Your task to perform on an android device: open app "Gmail" (install if not already installed) and go to login screen Image 0: 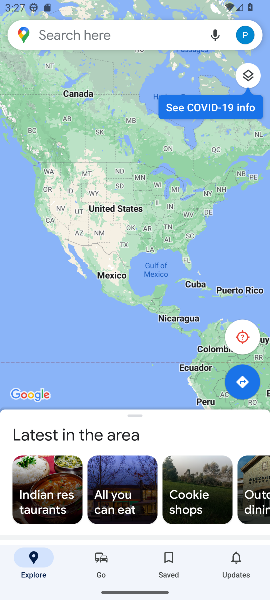
Step 0: press home button
Your task to perform on an android device: open app "Gmail" (install if not already installed) and go to login screen Image 1: 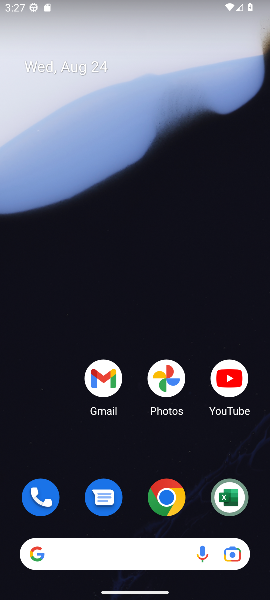
Step 1: drag from (129, 559) to (135, 227)
Your task to perform on an android device: open app "Gmail" (install if not already installed) and go to login screen Image 2: 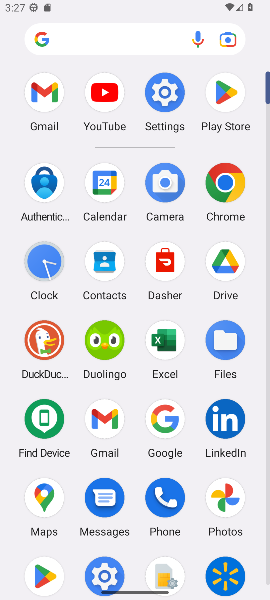
Step 2: click (230, 95)
Your task to perform on an android device: open app "Gmail" (install if not already installed) and go to login screen Image 3: 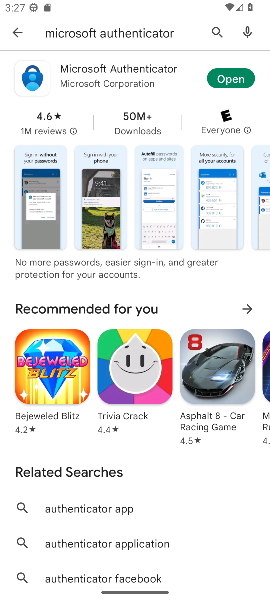
Step 3: press back button
Your task to perform on an android device: open app "Gmail" (install if not already installed) and go to login screen Image 4: 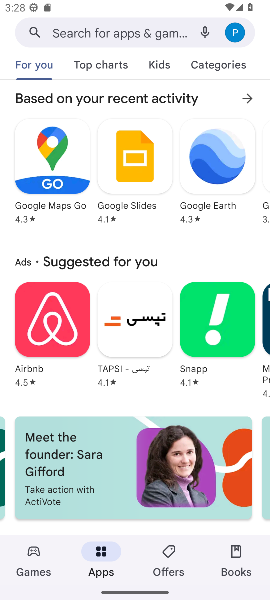
Step 4: click (147, 37)
Your task to perform on an android device: open app "Gmail" (install if not already installed) and go to login screen Image 5: 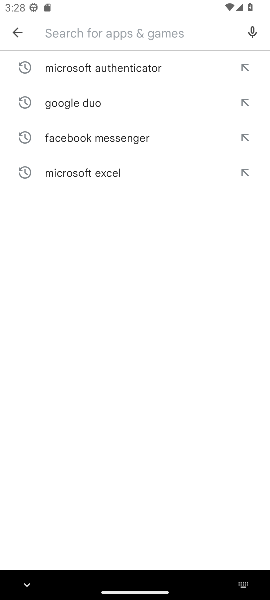
Step 5: type "Gmail"
Your task to perform on an android device: open app "Gmail" (install if not already installed) and go to login screen Image 6: 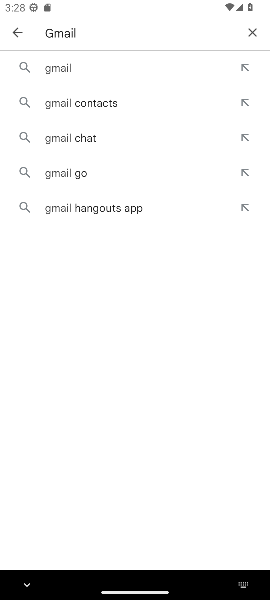
Step 6: click (58, 69)
Your task to perform on an android device: open app "Gmail" (install if not already installed) and go to login screen Image 7: 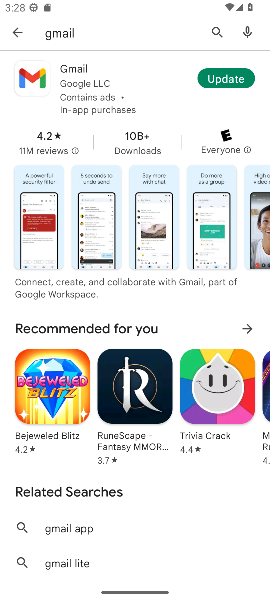
Step 7: click (70, 67)
Your task to perform on an android device: open app "Gmail" (install if not already installed) and go to login screen Image 8: 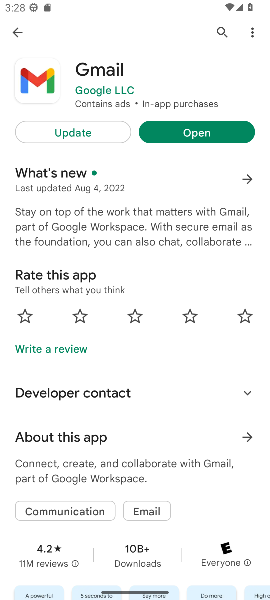
Step 8: click (204, 130)
Your task to perform on an android device: open app "Gmail" (install if not already installed) and go to login screen Image 9: 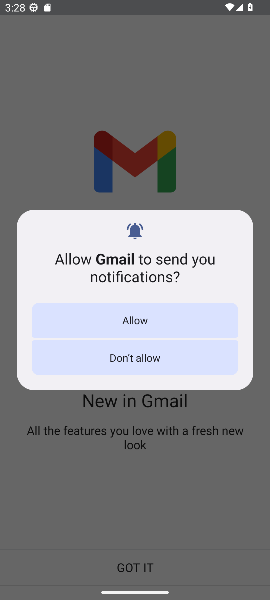
Step 9: click (135, 321)
Your task to perform on an android device: open app "Gmail" (install if not already installed) and go to login screen Image 10: 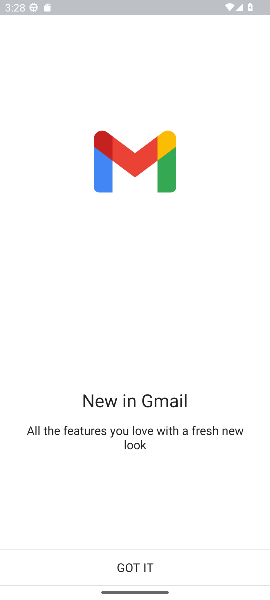
Step 10: click (149, 570)
Your task to perform on an android device: open app "Gmail" (install if not already installed) and go to login screen Image 11: 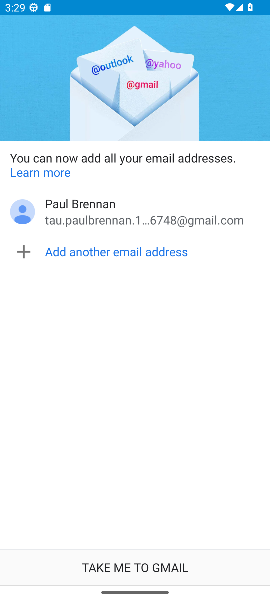
Step 11: click (129, 247)
Your task to perform on an android device: open app "Gmail" (install if not already installed) and go to login screen Image 12: 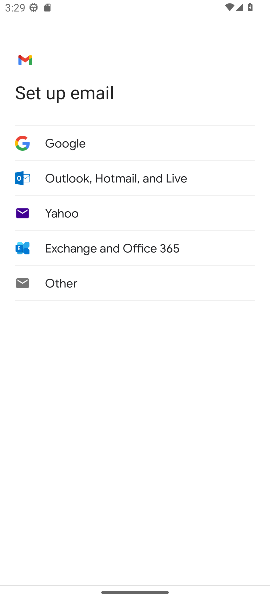
Step 12: click (65, 147)
Your task to perform on an android device: open app "Gmail" (install if not already installed) and go to login screen Image 13: 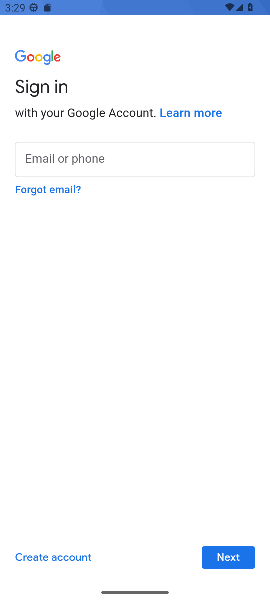
Step 13: task complete